Your task to perform on an android device: uninstall "Speedtest by Ookla" Image 0: 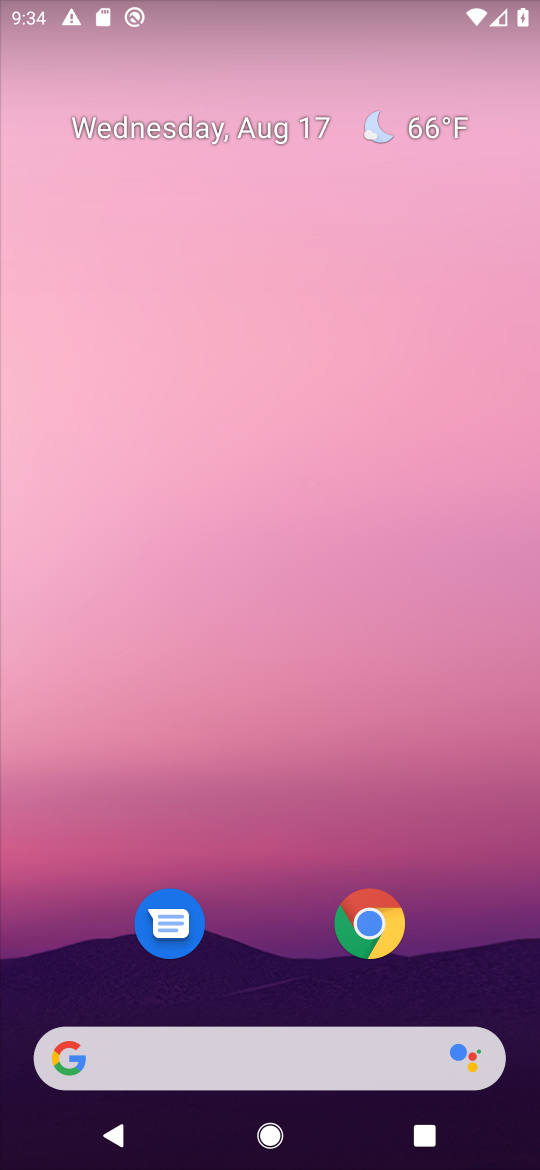
Step 0: drag from (460, 990) to (370, 343)
Your task to perform on an android device: uninstall "Speedtest by Ookla" Image 1: 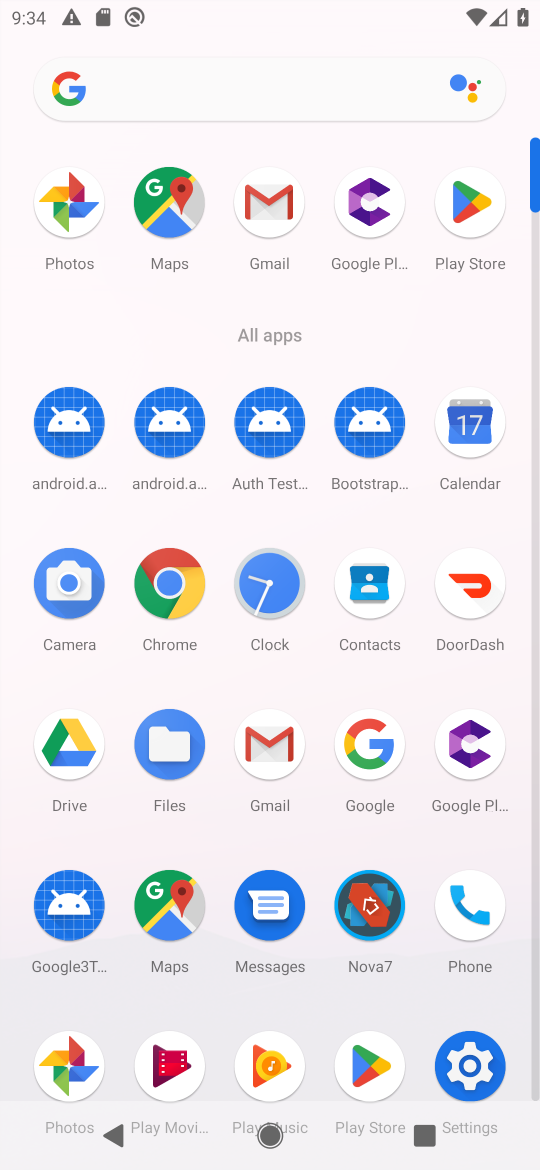
Step 1: click (469, 225)
Your task to perform on an android device: uninstall "Speedtest by Ookla" Image 2: 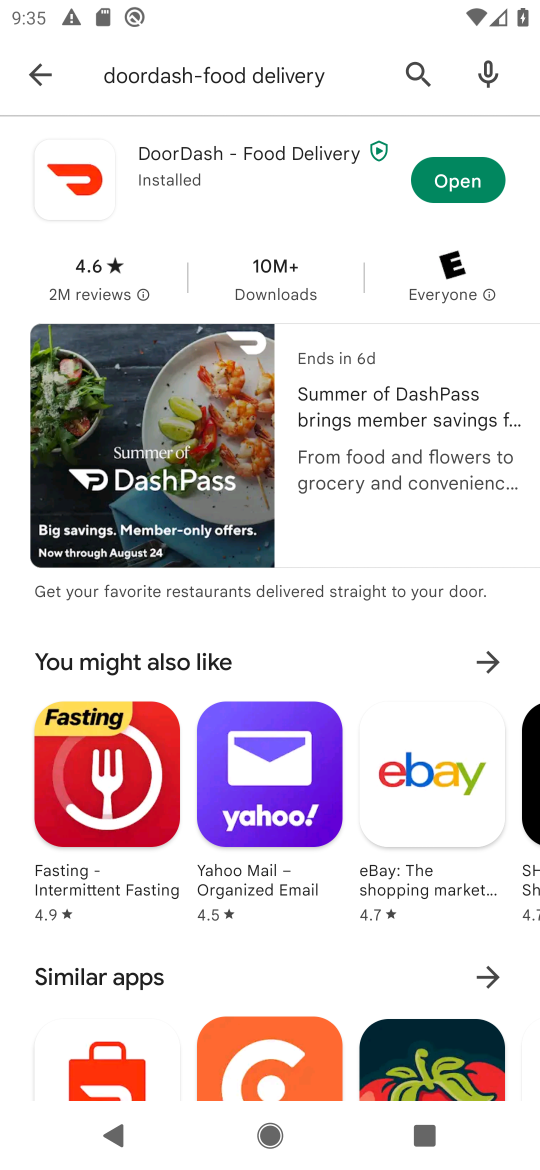
Step 2: click (411, 74)
Your task to perform on an android device: uninstall "Speedtest by Ookla" Image 3: 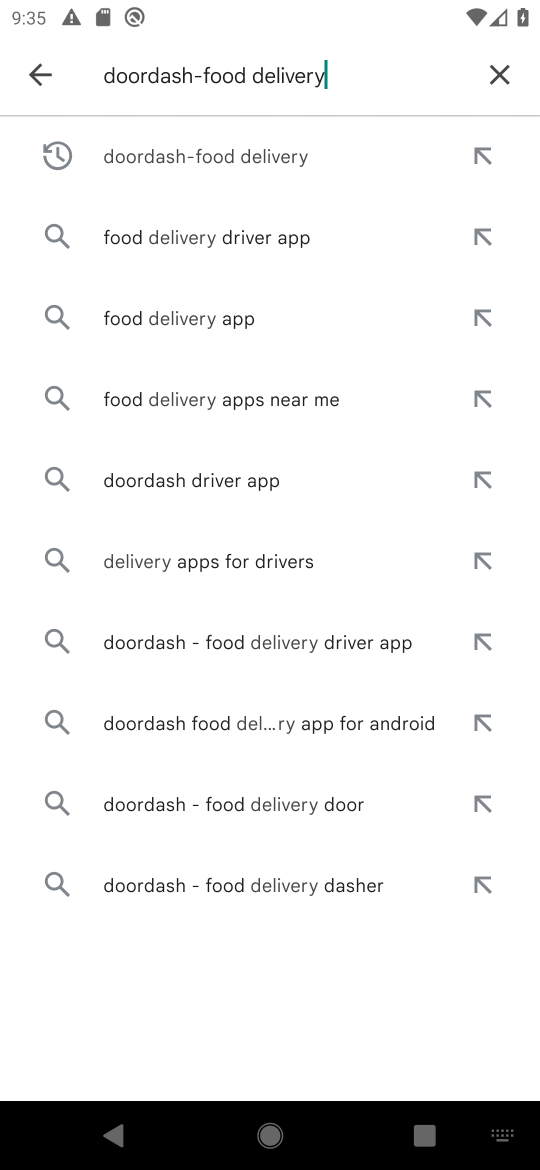
Step 3: click (496, 64)
Your task to perform on an android device: uninstall "Speedtest by Ookla" Image 4: 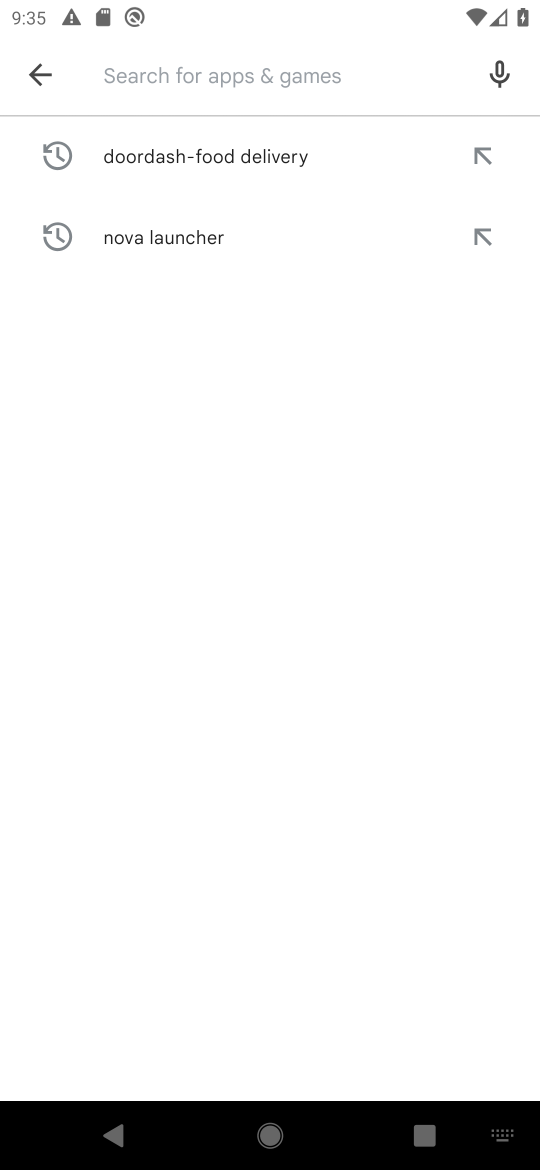
Step 4: type "speedtest by ookla"
Your task to perform on an android device: uninstall "Speedtest by Ookla" Image 5: 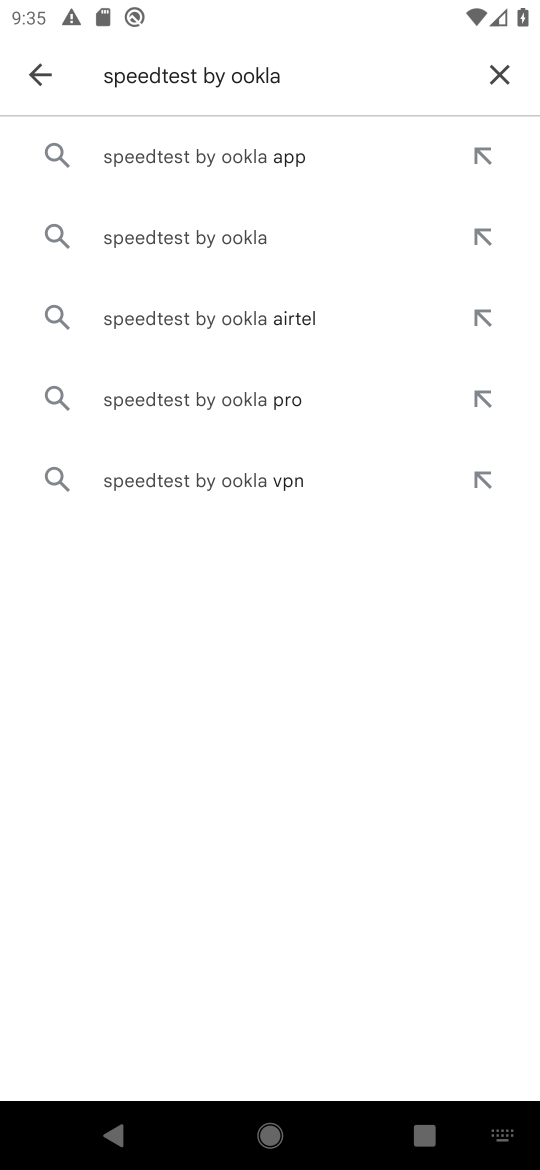
Step 5: click (248, 225)
Your task to perform on an android device: uninstall "Speedtest by Ookla" Image 6: 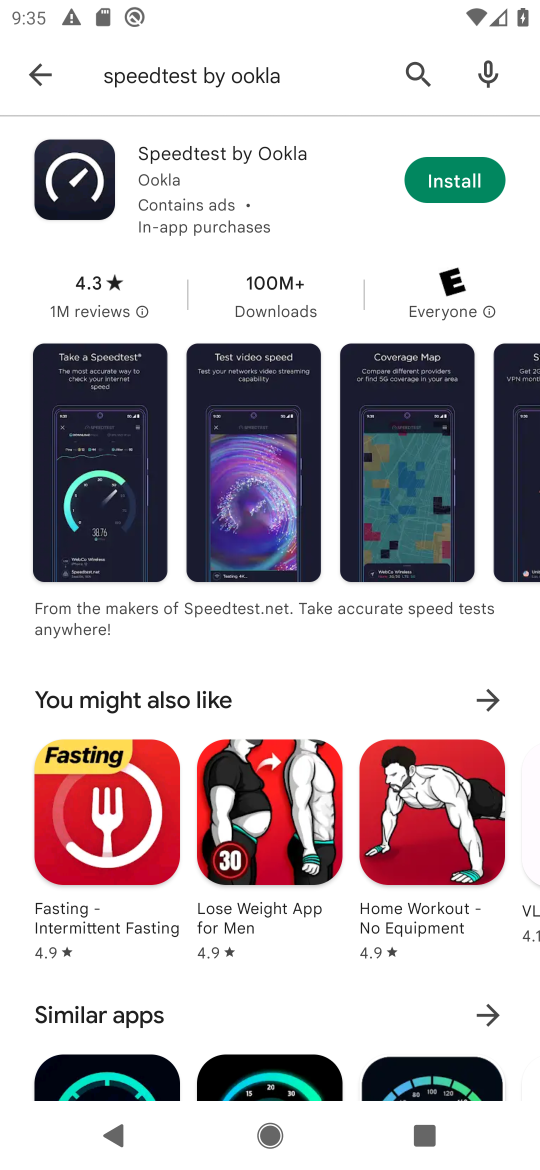
Step 6: task complete